Your task to perform on an android device: Open Chrome and go to the settings page Image 0: 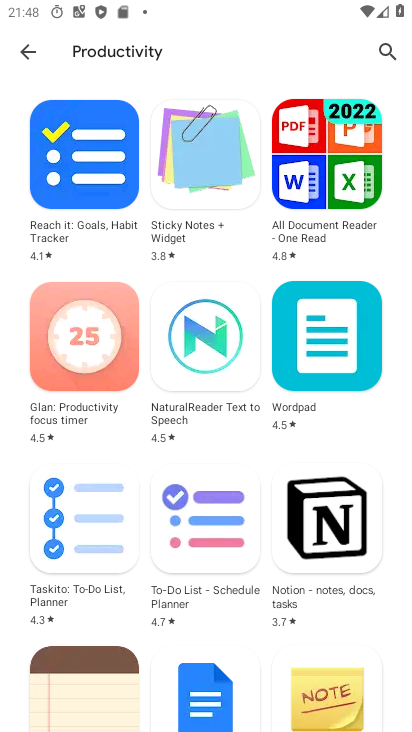
Step 0: press home button
Your task to perform on an android device: Open Chrome and go to the settings page Image 1: 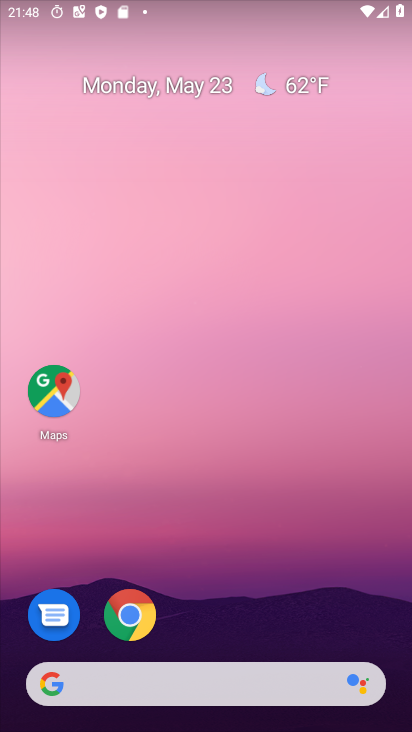
Step 1: click (137, 616)
Your task to perform on an android device: Open Chrome and go to the settings page Image 2: 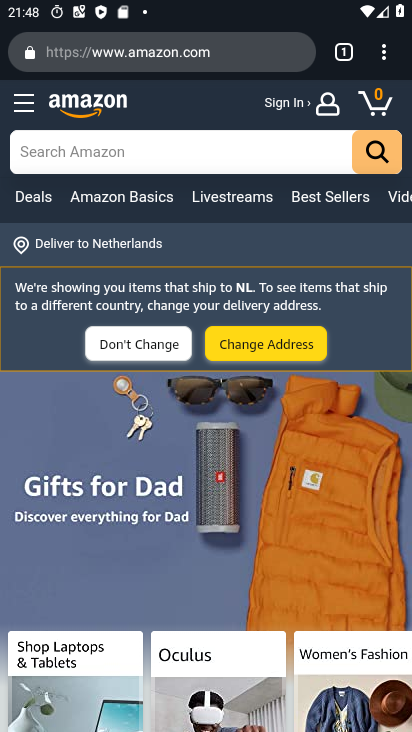
Step 2: click (376, 50)
Your task to perform on an android device: Open Chrome and go to the settings page Image 3: 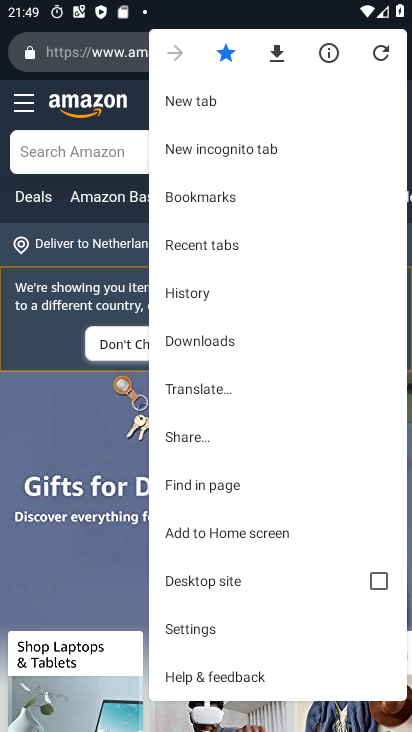
Step 3: click (217, 631)
Your task to perform on an android device: Open Chrome and go to the settings page Image 4: 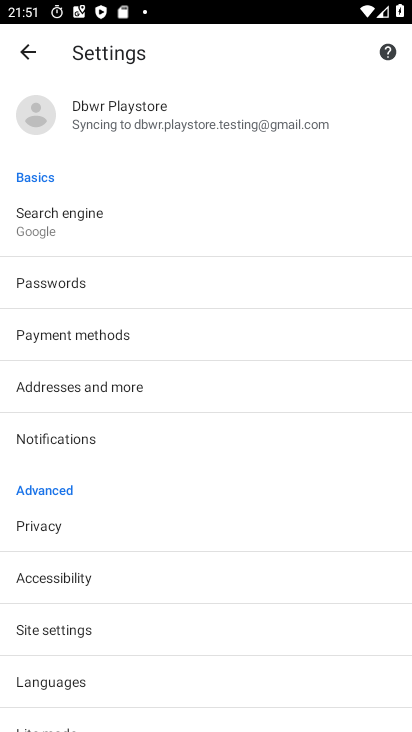
Step 4: task complete